Your task to perform on an android device: clear all cookies in the chrome app Image 0: 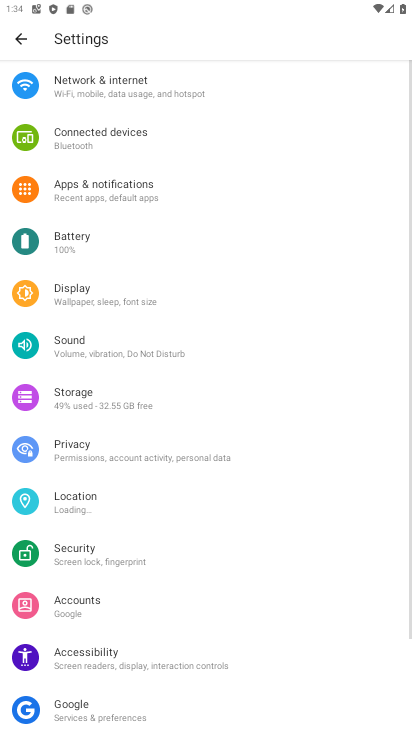
Step 0: press home button
Your task to perform on an android device: clear all cookies in the chrome app Image 1: 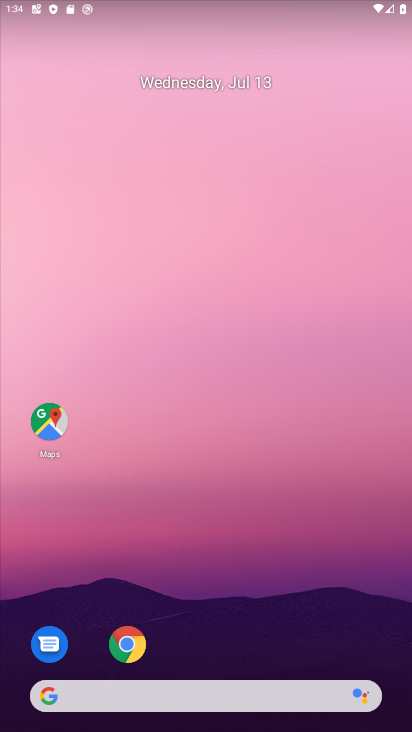
Step 1: click (116, 629)
Your task to perform on an android device: clear all cookies in the chrome app Image 2: 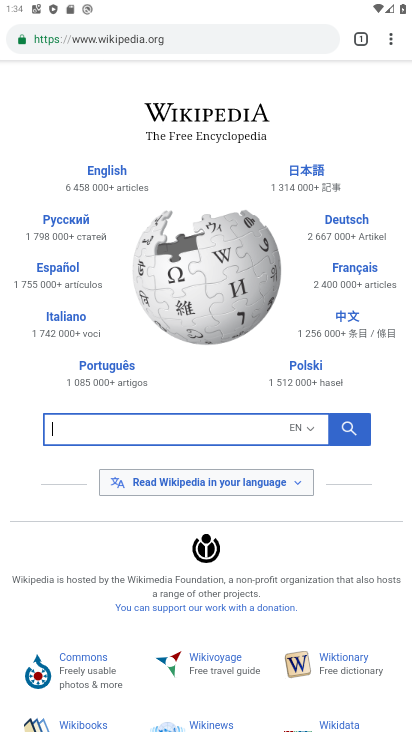
Step 2: click (391, 31)
Your task to perform on an android device: clear all cookies in the chrome app Image 3: 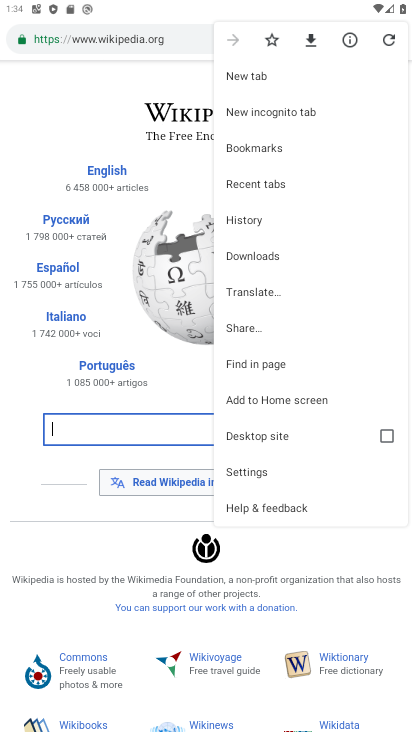
Step 3: click (265, 222)
Your task to perform on an android device: clear all cookies in the chrome app Image 4: 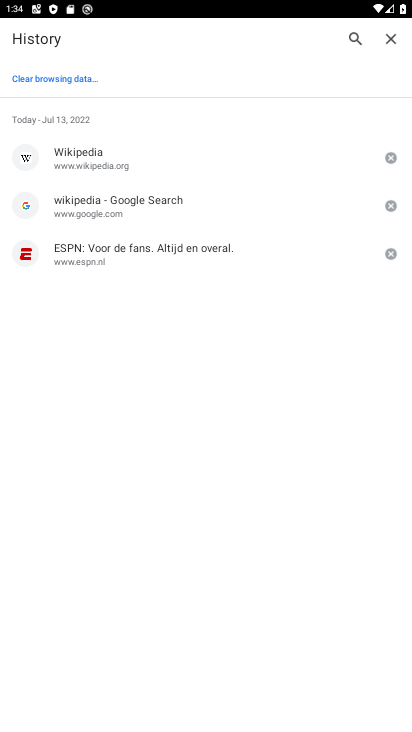
Step 4: click (30, 75)
Your task to perform on an android device: clear all cookies in the chrome app Image 5: 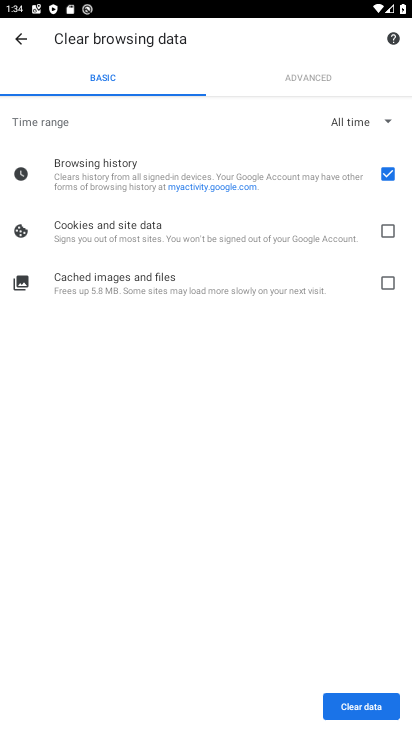
Step 5: click (346, 179)
Your task to perform on an android device: clear all cookies in the chrome app Image 6: 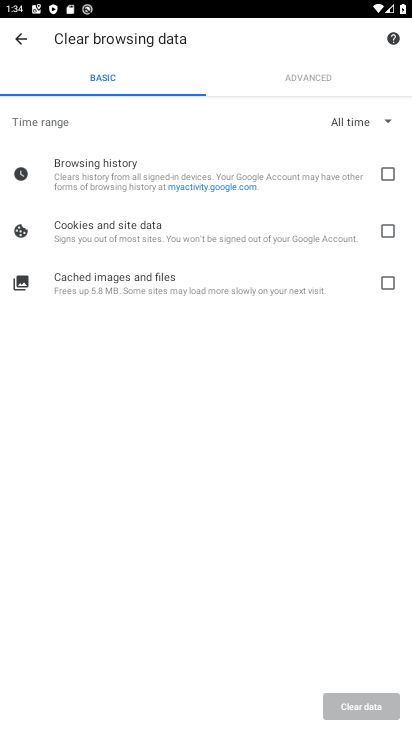
Step 6: click (302, 231)
Your task to perform on an android device: clear all cookies in the chrome app Image 7: 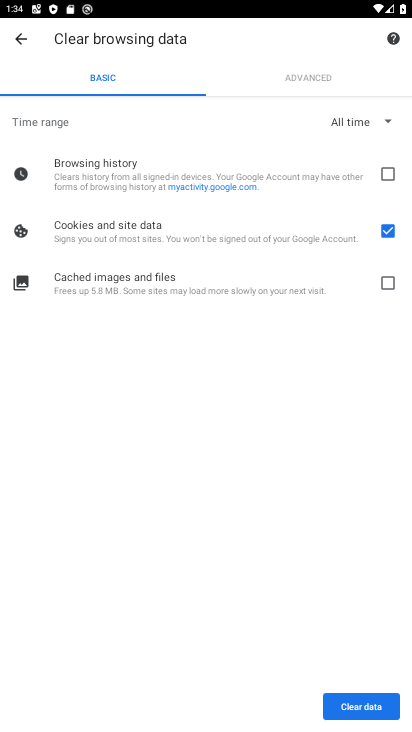
Step 7: click (340, 700)
Your task to perform on an android device: clear all cookies in the chrome app Image 8: 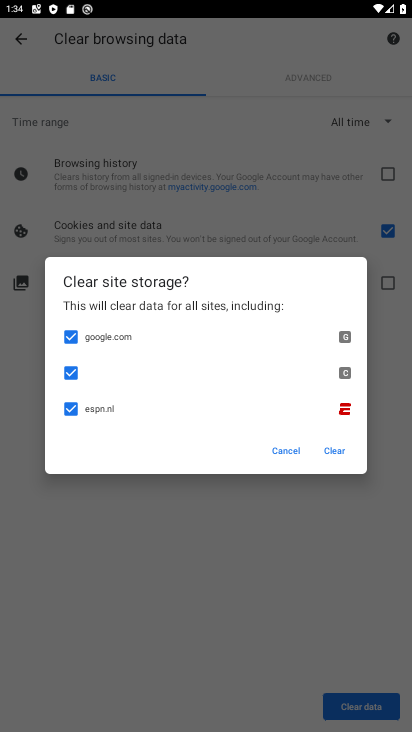
Step 8: click (336, 442)
Your task to perform on an android device: clear all cookies in the chrome app Image 9: 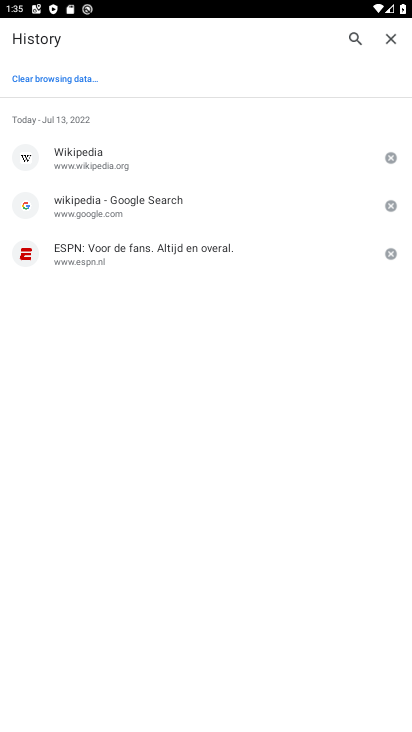
Step 9: task complete